Your task to perform on an android device: Open calendar and show me the second week of next month Image 0: 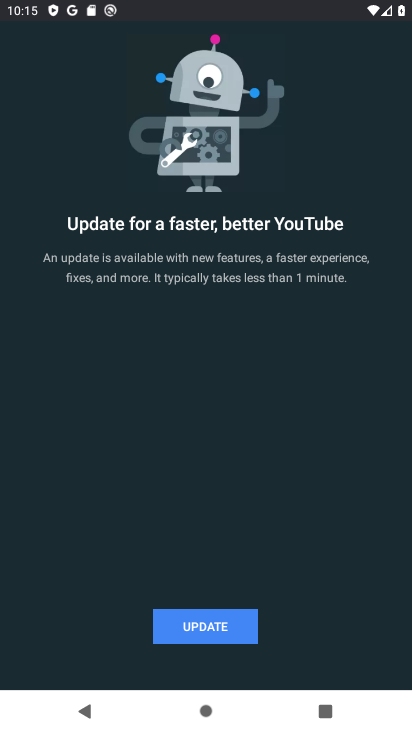
Step 0: press home button
Your task to perform on an android device: Open calendar and show me the second week of next month Image 1: 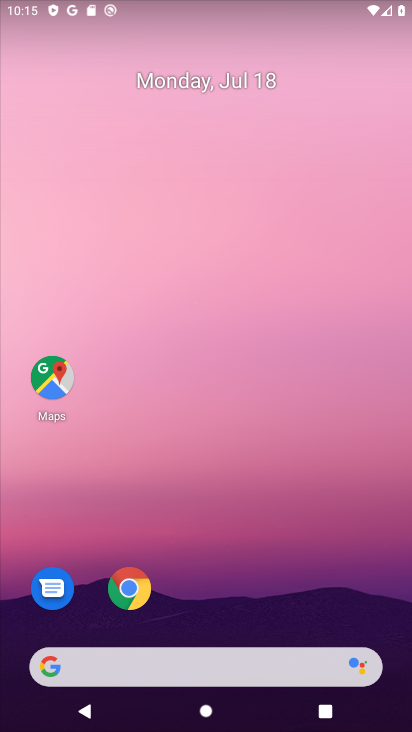
Step 1: drag from (242, 581) to (220, 9)
Your task to perform on an android device: Open calendar and show me the second week of next month Image 2: 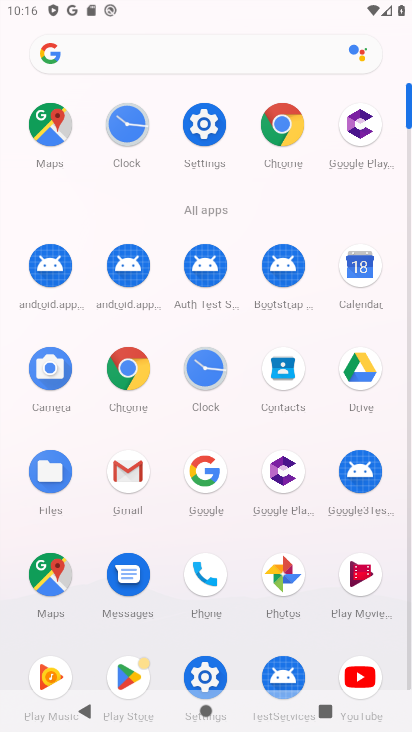
Step 2: click (362, 290)
Your task to perform on an android device: Open calendar and show me the second week of next month Image 3: 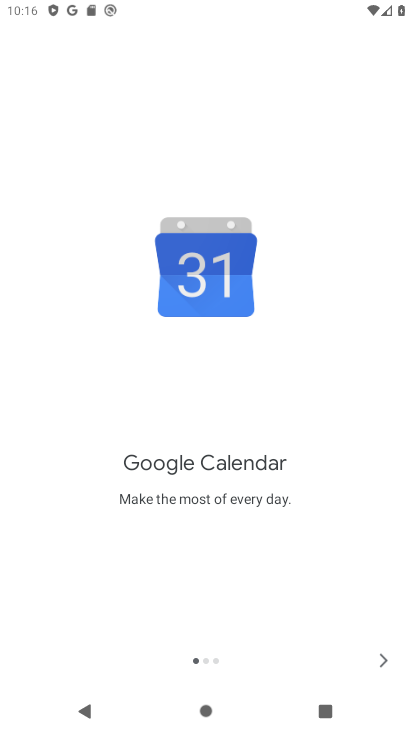
Step 3: click (389, 674)
Your task to perform on an android device: Open calendar and show me the second week of next month Image 4: 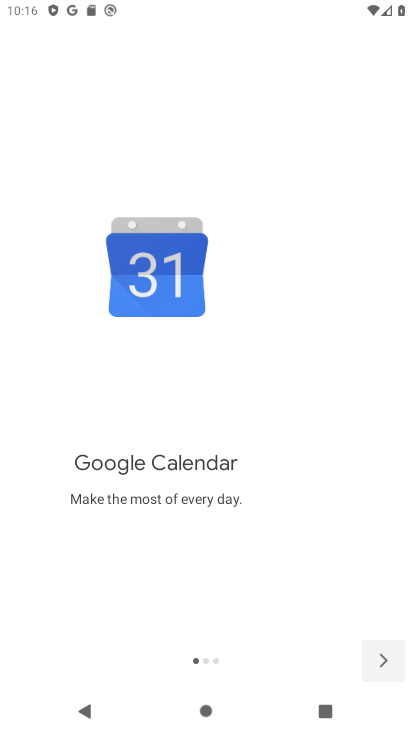
Step 4: click (389, 674)
Your task to perform on an android device: Open calendar and show me the second week of next month Image 5: 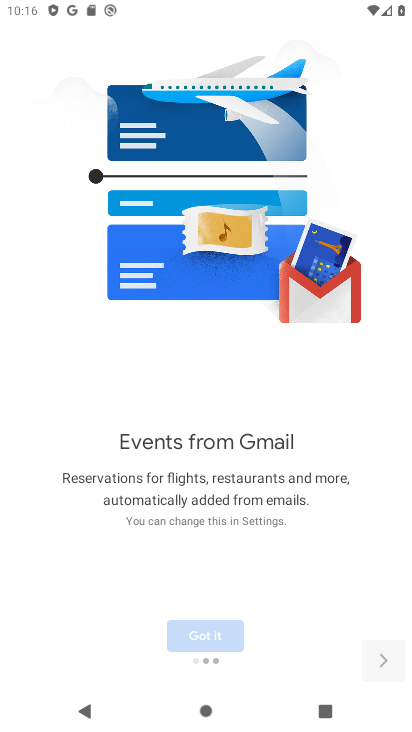
Step 5: click (389, 674)
Your task to perform on an android device: Open calendar and show me the second week of next month Image 6: 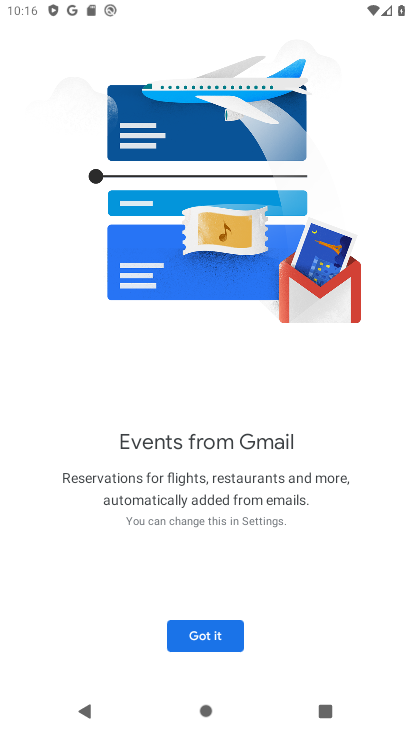
Step 6: click (214, 642)
Your task to perform on an android device: Open calendar and show me the second week of next month Image 7: 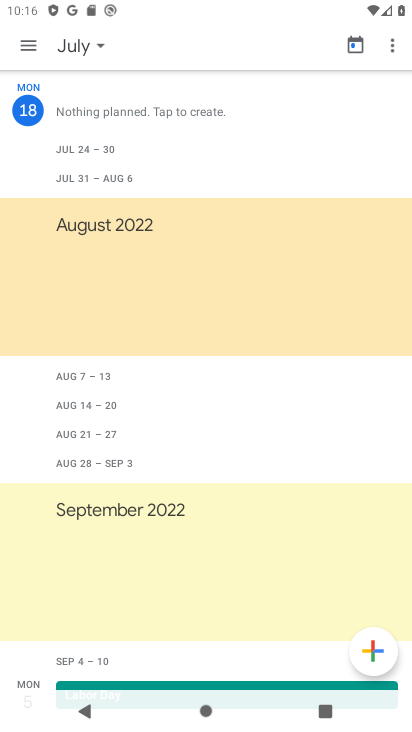
Step 7: click (80, 42)
Your task to perform on an android device: Open calendar and show me the second week of next month Image 8: 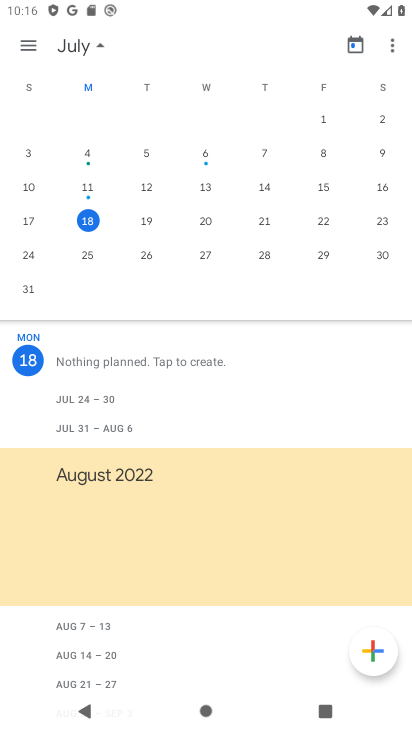
Step 8: drag from (354, 249) to (5, 225)
Your task to perform on an android device: Open calendar and show me the second week of next month Image 9: 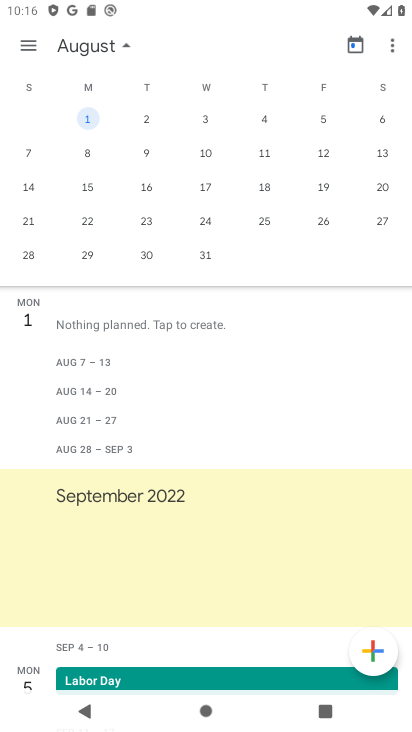
Step 9: click (99, 167)
Your task to perform on an android device: Open calendar and show me the second week of next month Image 10: 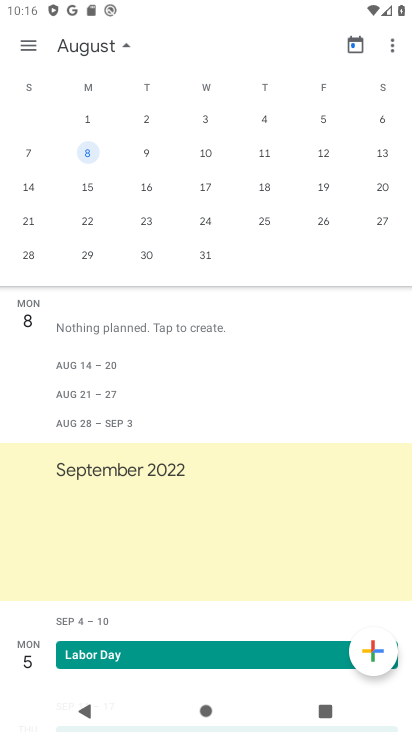
Step 10: task complete